Your task to perform on an android device: delete a single message in the gmail app Image 0: 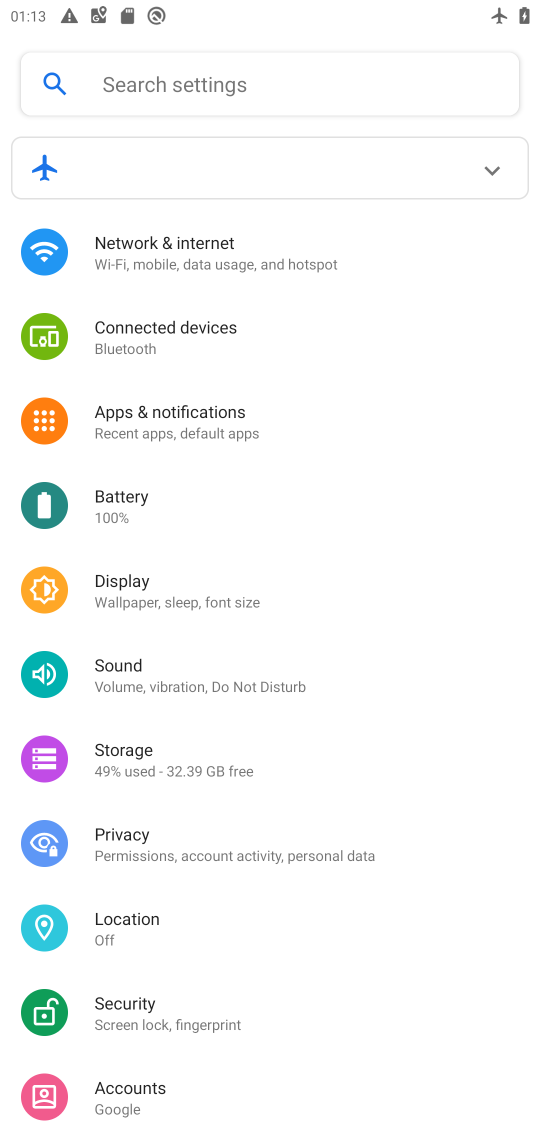
Step 0: press home button
Your task to perform on an android device: delete a single message in the gmail app Image 1: 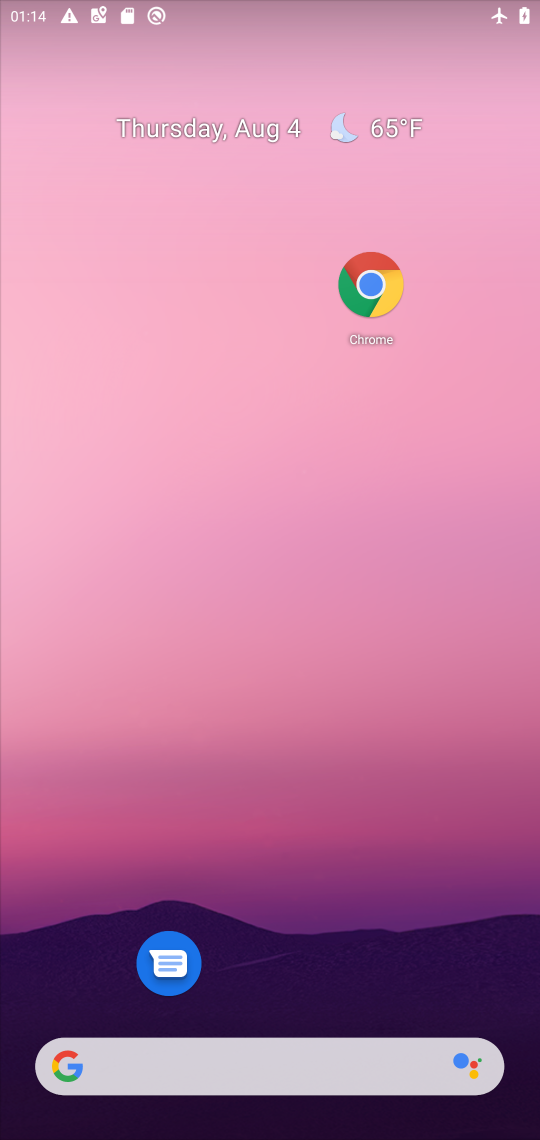
Step 1: drag from (277, 973) to (266, 397)
Your task to perform on an android device: delete a single message in the gmail app Image 2: 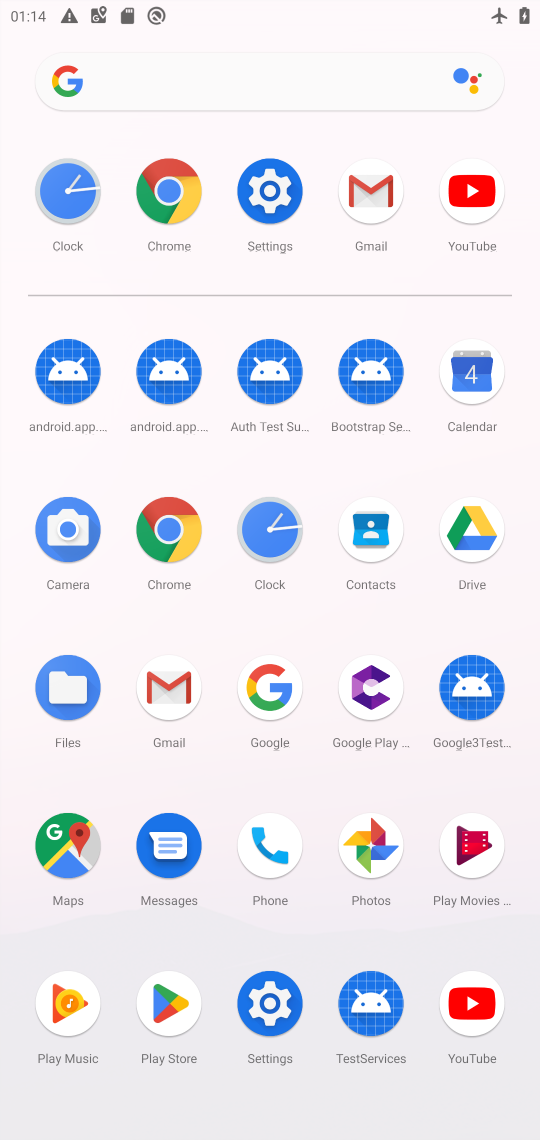
Step 2: click (367, 197)
Your task to perform on an android device: delete a single message in the gmail app Image 3: 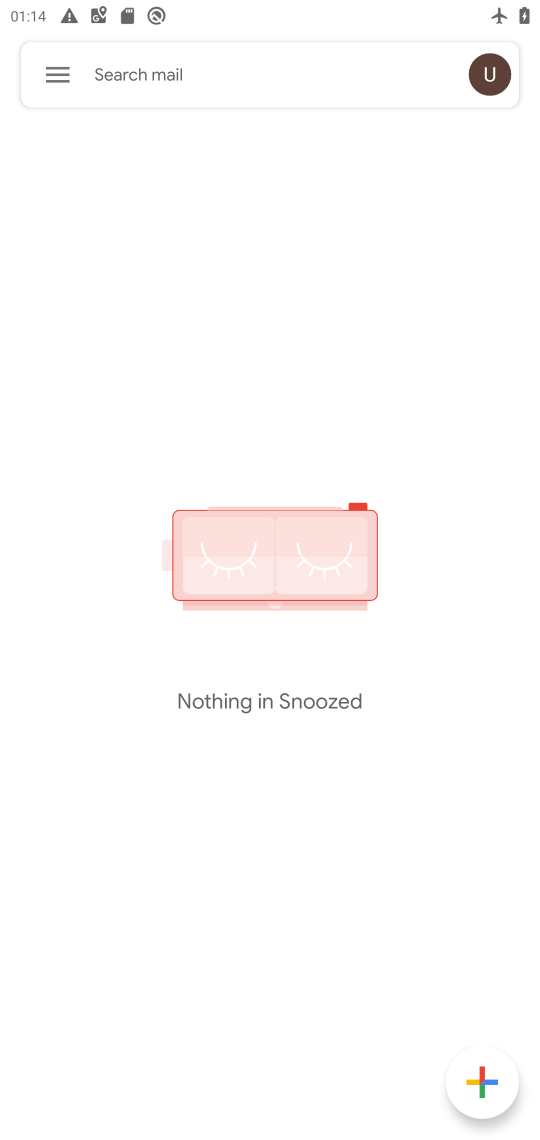
Step 3: click (43, 64)
Your task to perform on an android device: delete a single message in the gmail app Image 4: 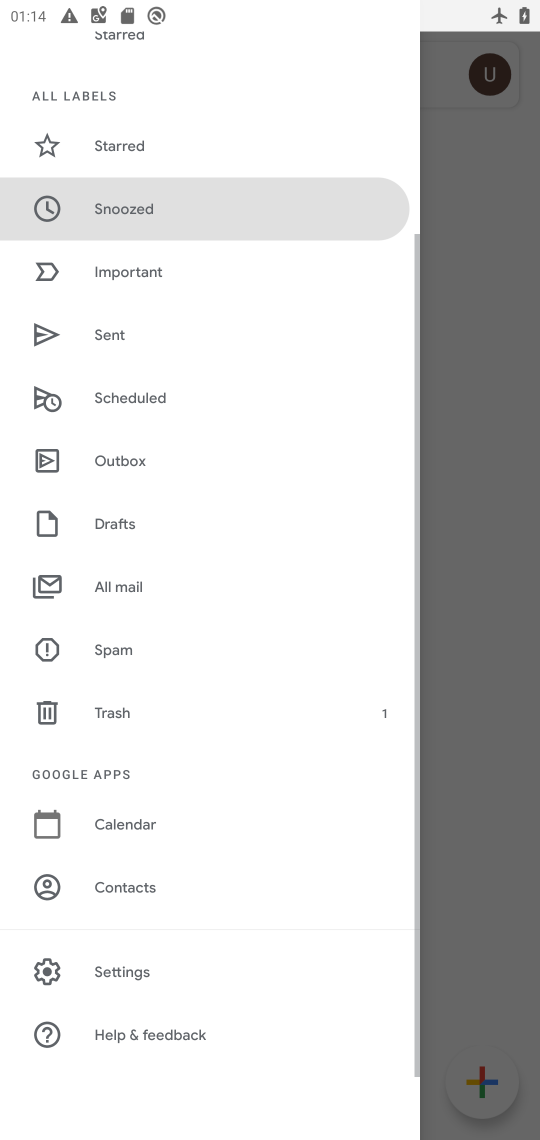
Step 4: click (140, 587)
Your task to perform on an android device: delete a single message in the gmail app Image 5: 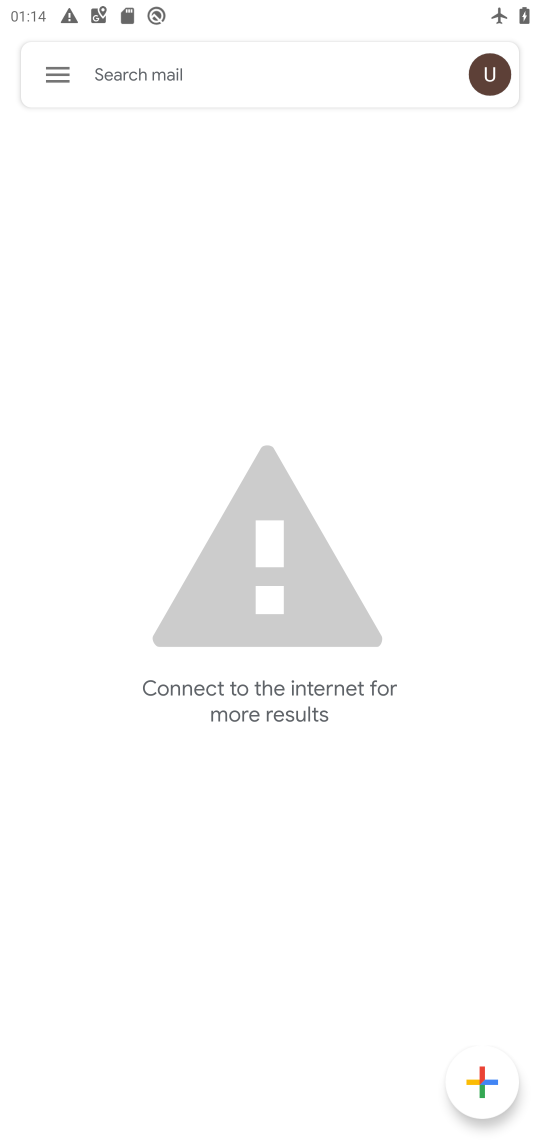
Step 5: task complete